Your task to perform on an android device: turn off javascript in the chrome app Image 0: 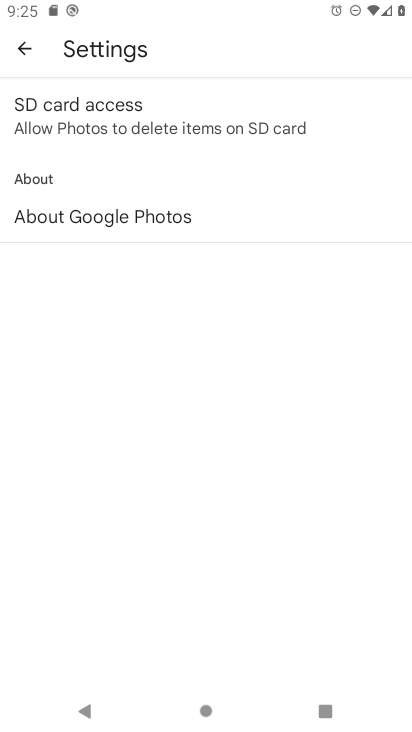
Step 0: press home button
Your task to perform on an android device: turn off javascript in the chrome app Image 1: 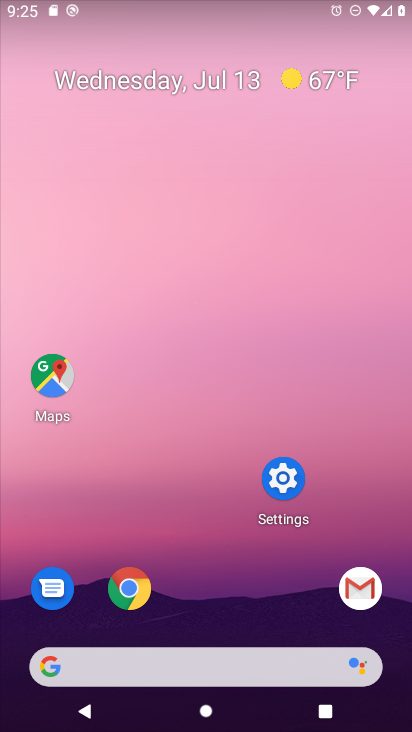
Step 1: click (138, 587)
Your task to perform on an android device: turn off javascript in the chrome app Image 2: 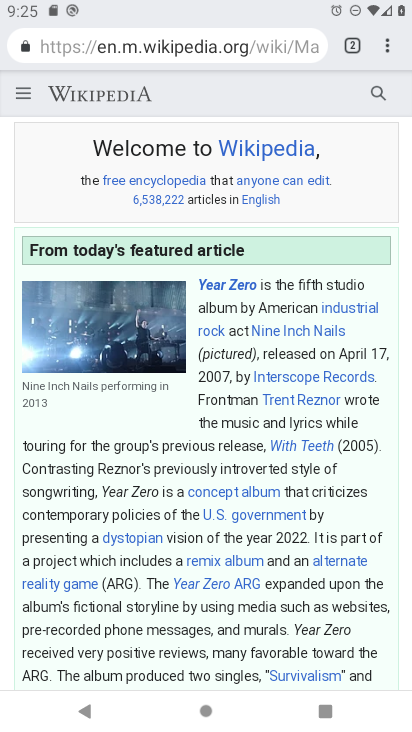
Step 2: click (389, 47)
Your task to perform on an android device: turn off javascript in the chrome app Image 3: 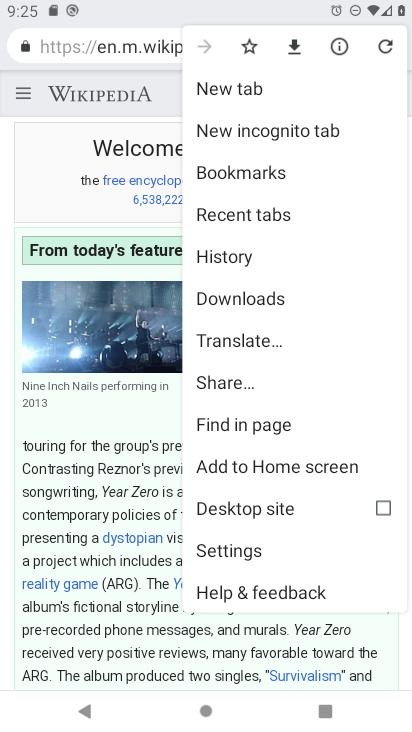
Step 3: click (227, 555)
Your task to perform on an android device: turn off javascript in the chrome app Image 4: 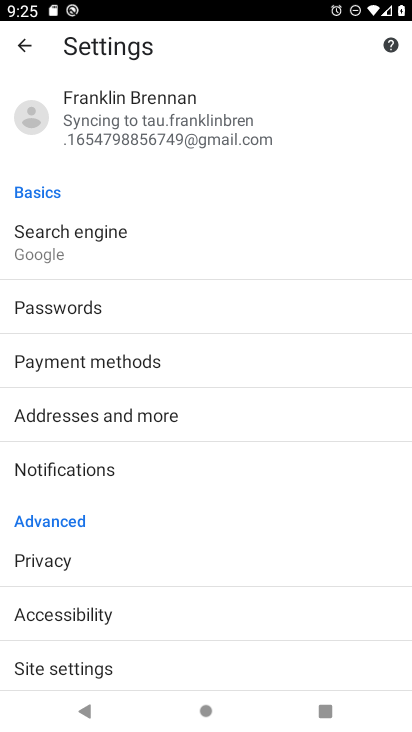
Step 4: click (47, 664)
Your task to perform on an android device: turn off javascript in the chrome app Image 5: 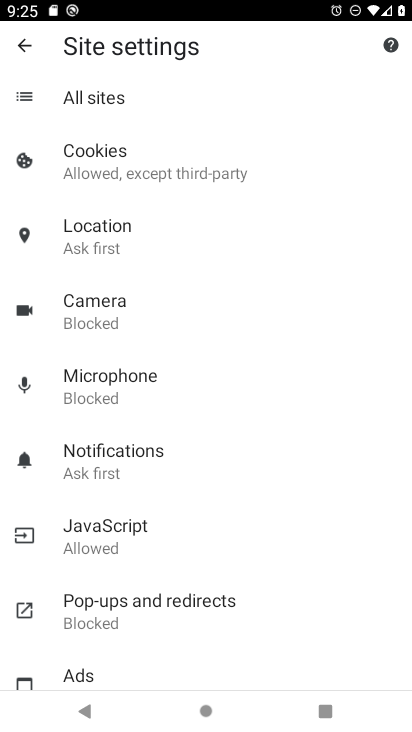
Step 5: click (107, 541)
Your task to perform on an android device: turn off javascript in the chrome app Image 6: 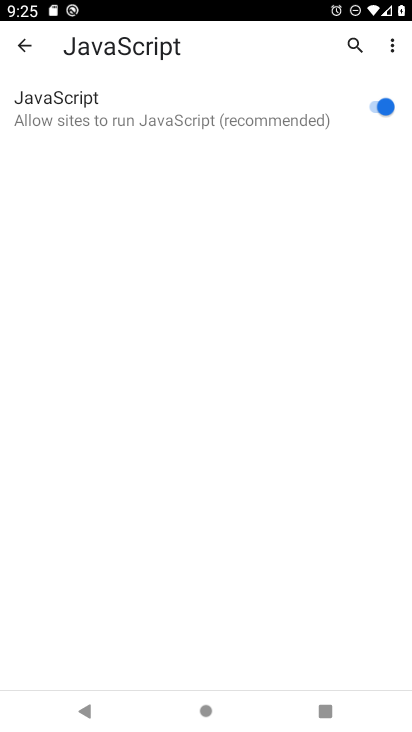
Step 6: click (372, 101)
Your task to perform on an android device: turn off javascript in the chrome app Image 7: 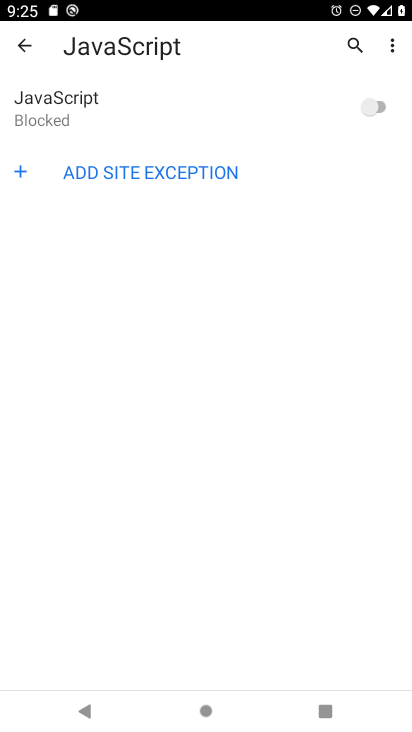
Step 7: task complete